Your task to perform on an android device: turn on data saver in the chrome app Image 0: 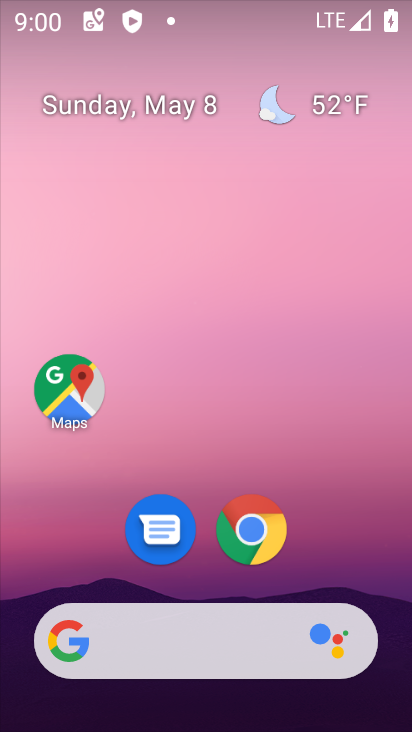
Step 0: drag from (371, 557) to (383, 78)
Your task to perform on an android device: turn on data saver in the chrome app Image 1: 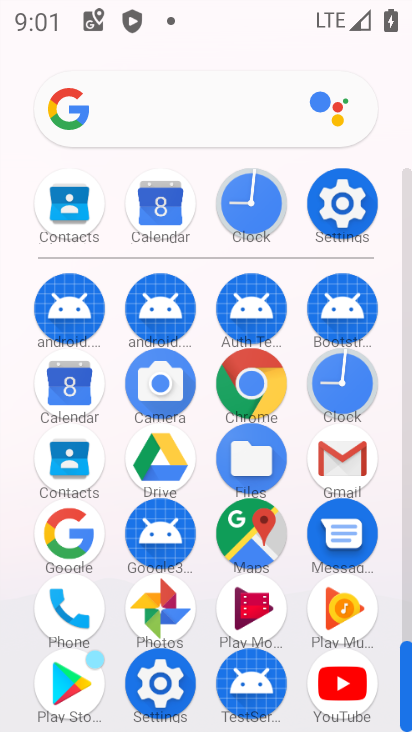
Step 1: click (282, 388)
Your task to perform on an android device: turn on data saver in the chrome app Image 2: 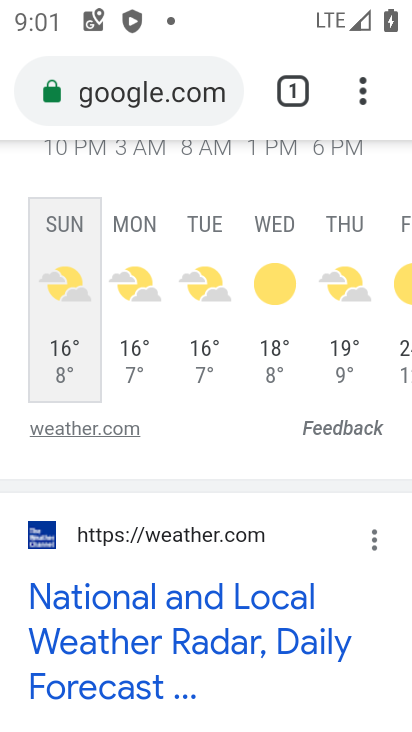
Step 2: drag from (371, 102) to (256, 543)
Your task to perform on an android device: turn on data saver in the chrome app Image 3: 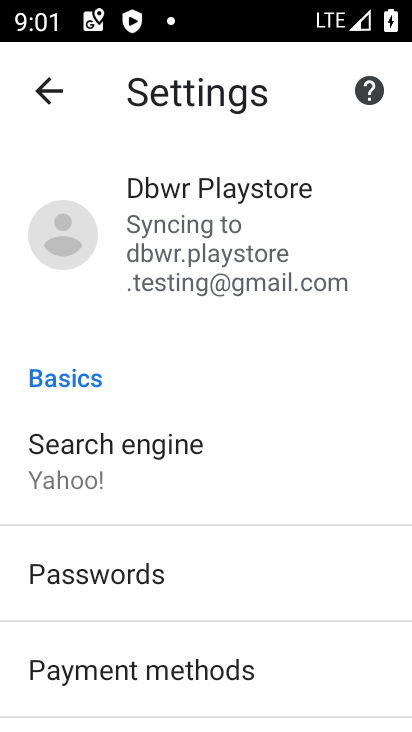
Step 3: drag from (305, 644) to (333, 268)
Your task to perform on an android device: turn on data saver in the chrome app Image 4: 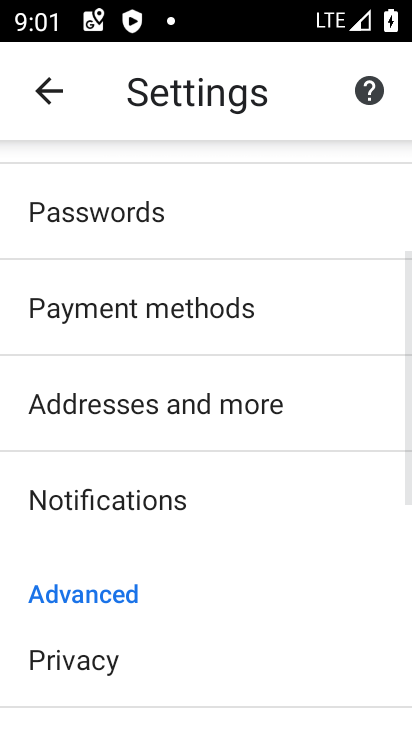
Step 4: drag from (295, 648) to (322, 271)
Your task to perform on an android device: turn on data saver in the chrome app Image 5: 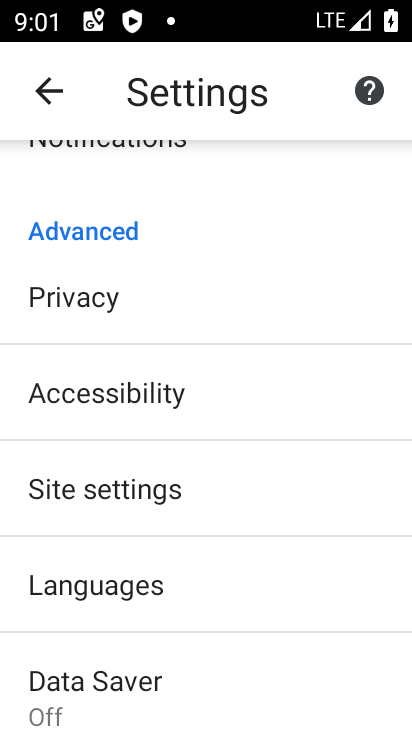
Step 5: click (216, 691)
Your task to perform on an android device: turn on data saver in the chrome app Image 6: 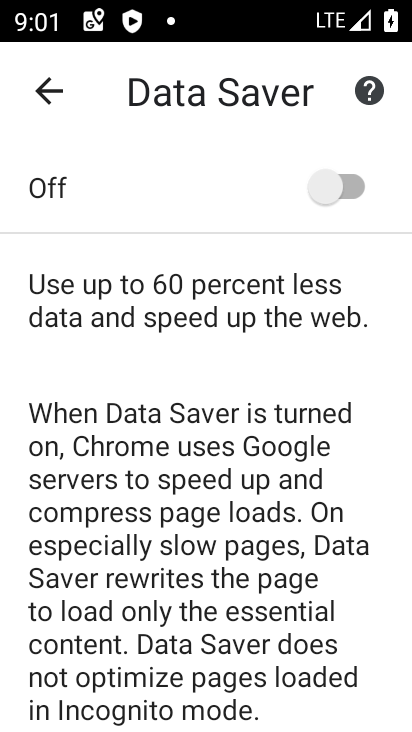
Step 6: click (347, 189)
Your task to perform on an android device: turn on data saver in the chrome app Image 7: 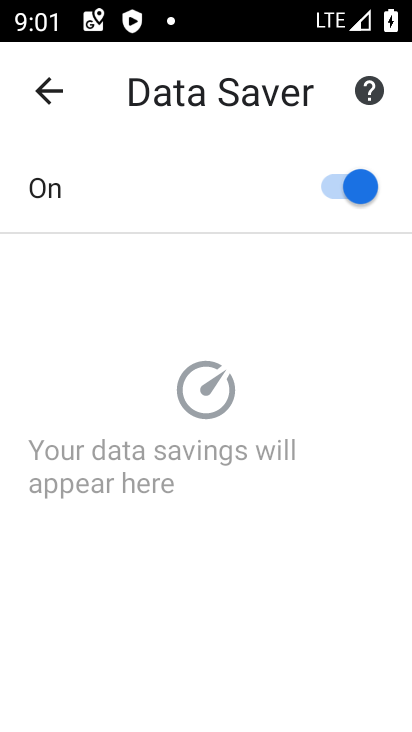
Step 7: task complete